Your task to perform on an android device: Open location settings Image 0: 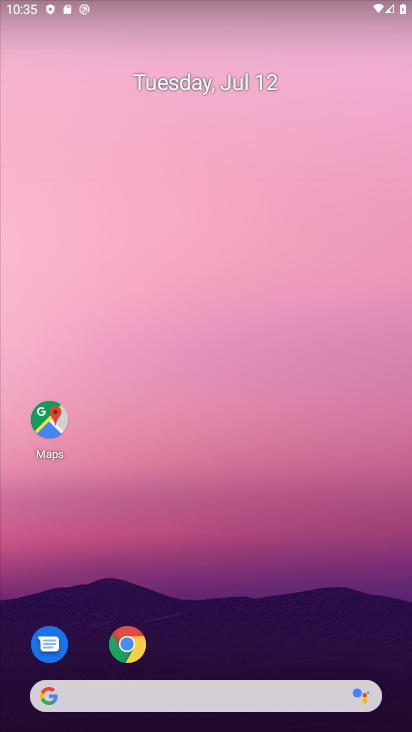
Step 0: drag from (239, 365) to (239, 117)
Your task to perform on an android device: Open location settings Image 1: 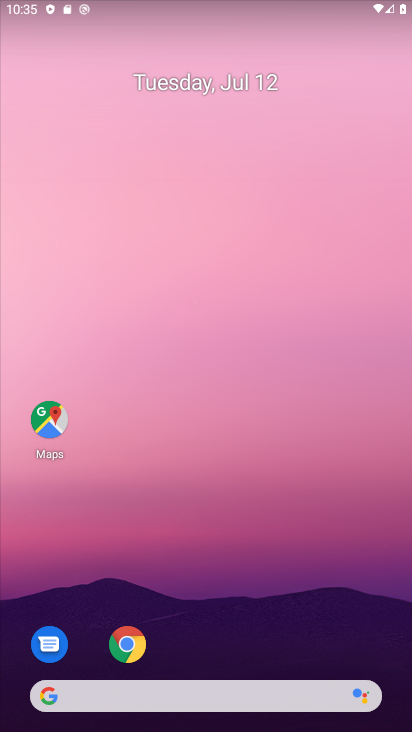
Step 1: drag from (175, 641) to (216, 34)
Your task to perform on an android device: Open location settings Image 2: 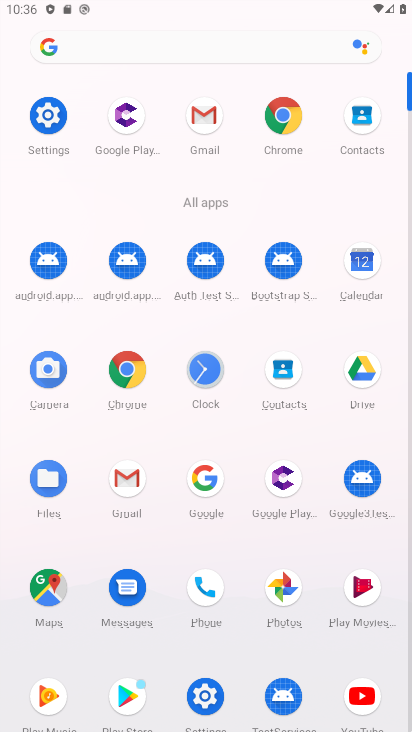
Step 2: click (46, 107)
Your task to perform on an android device: Open location settings Image 3: 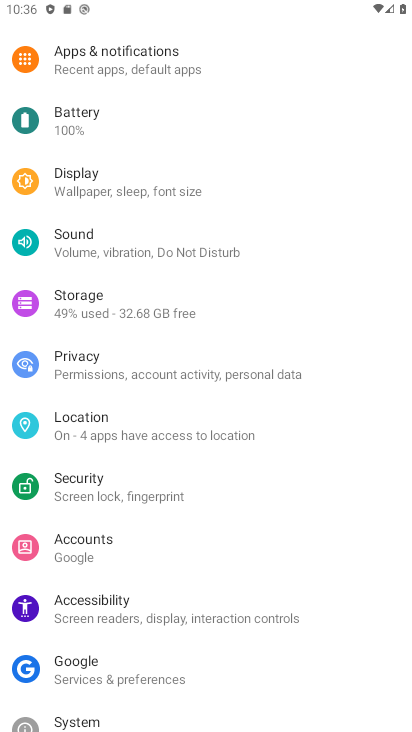
Step 3: click (127, 419)
Your task to perform on an android device: Open location settings Image 4: 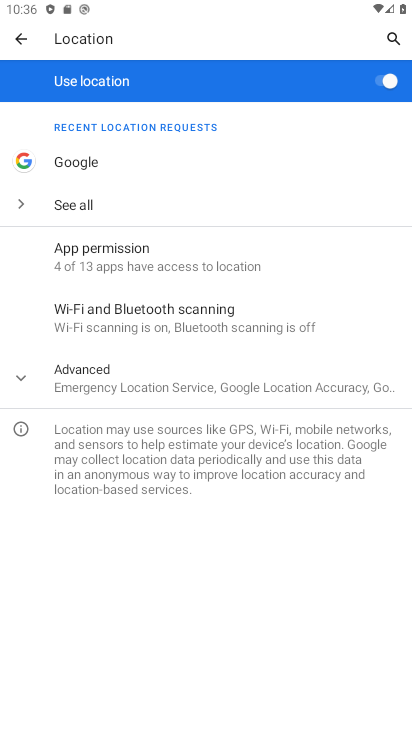
Step 4: click (25, 375)
Your task to perform on an android device: Open location settings Image 5: 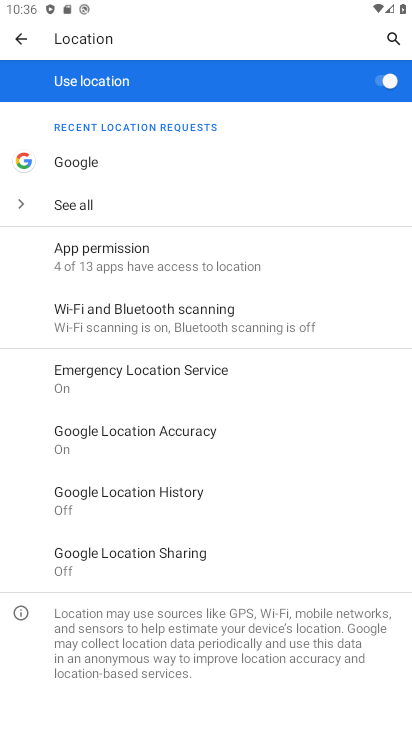
Step 5: task complete